Your task to perform on an android device: Open Android settings Image 0: 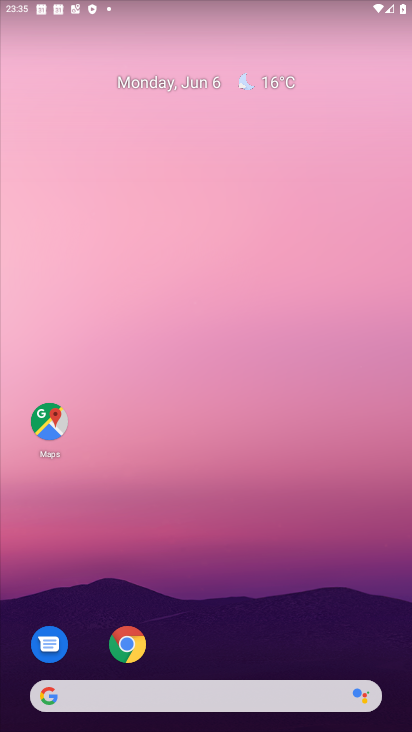
Step 0: drag from (295, 566) to (285, 10)
Your task to perform on an android device: Open Android settings Image 1: 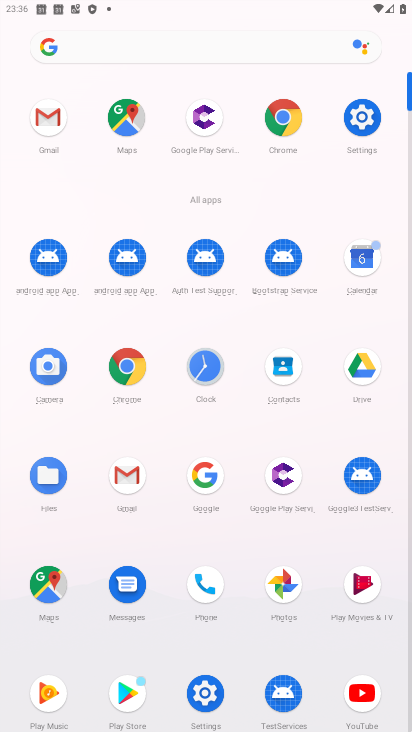
Step 1: click (203, 689)
Your task to perform on an android device: Open Android settings Image 2: 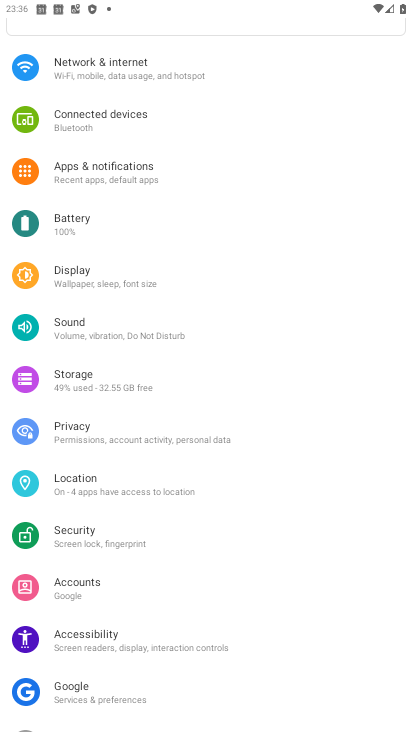
Step 2: task complete